Your task to perform on an android device: toggle pop-ups in chrome Image 0: 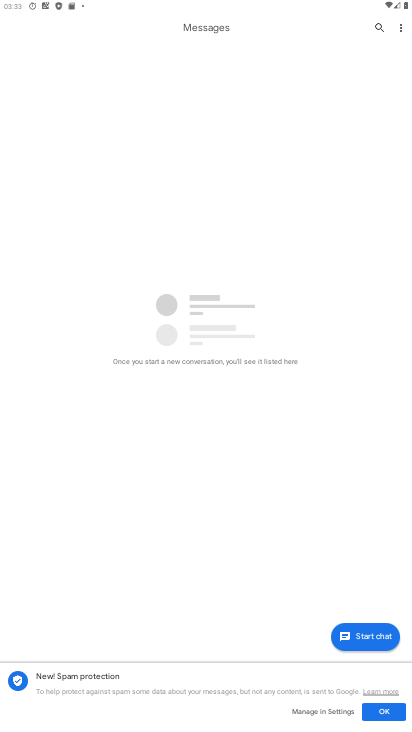
Step 0: press home button
Your task to perform on an android device: toggle pop-ups in chrome Image 1: 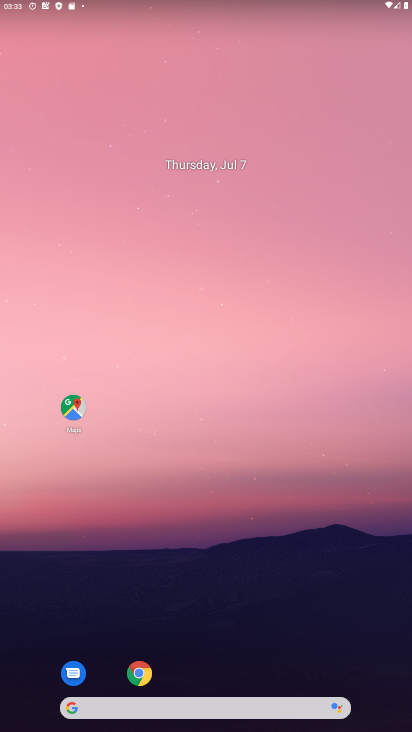
Step 1: click (144, 673)
Your task to perform on an android device: toggle pop-ups in chrome Image 2: 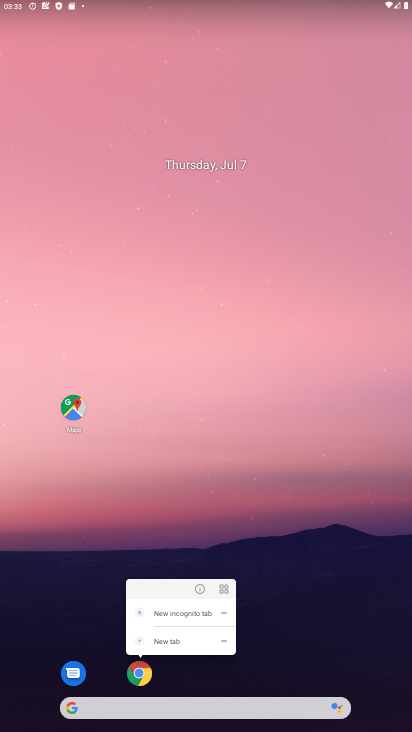
Step 2: click (148, 677)
Your task to perform on an android device: toggle pop-ups in chrome Image 3: 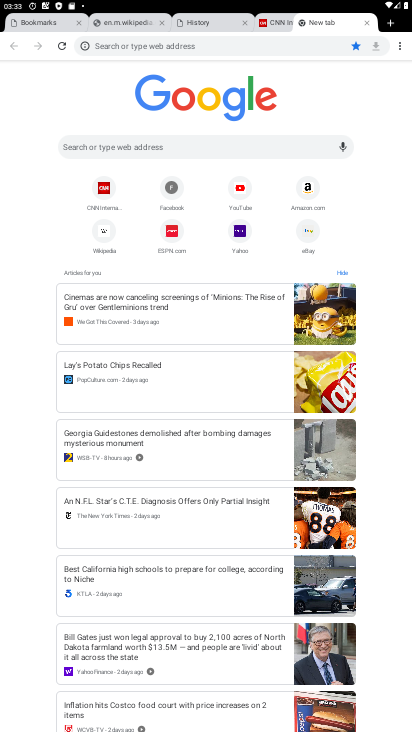
Step 3: click (403, 41)
Your task to perform on an android device: toggle pop-ups in chrome Image 4: 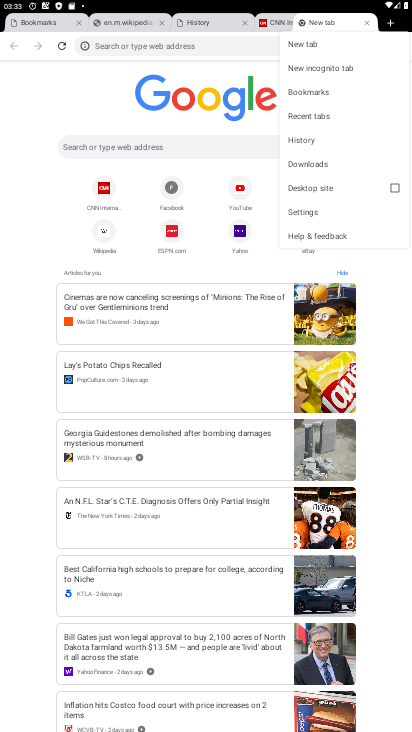
Step 4: click (326, 211)
Your task to perform on an android device: toggle pop-ups in chrome Image 5: 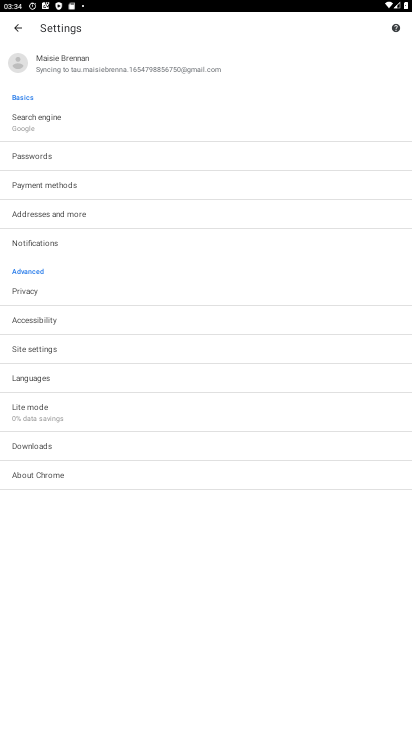
Step 5: click (51, 354)
Your task to perform on an android device: toggle pop-ups in chrome Image 6: 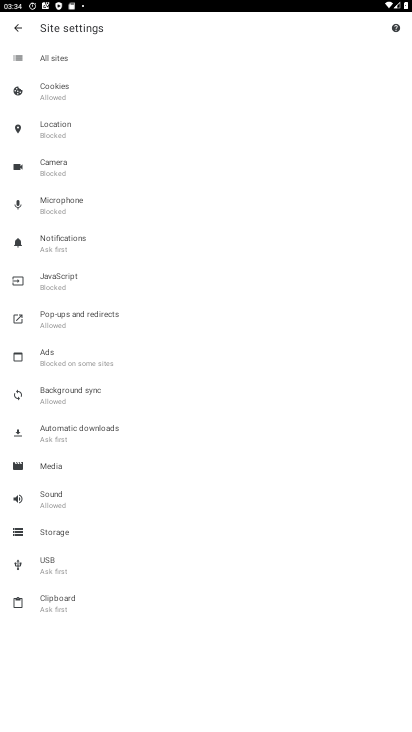
Step 6: click (88, 306)
Your task to perform on an android device: toggle pop-ups in chrome Image 7: 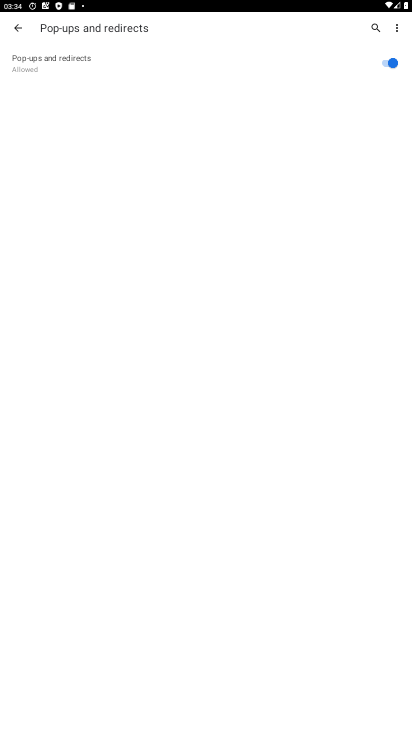
Step 7: click (382, 60)
Your task to perform on an android device: toggle pop-ups in chrome Image 8: 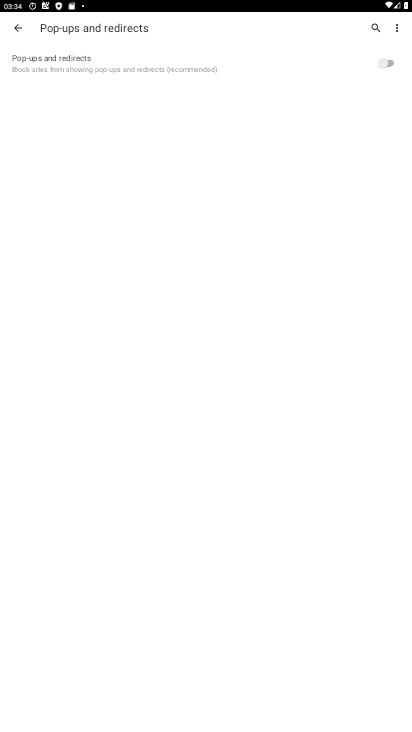
Step 8: task complete